Your task to perform on an android device: Open Chrome and go to settings Image 0: 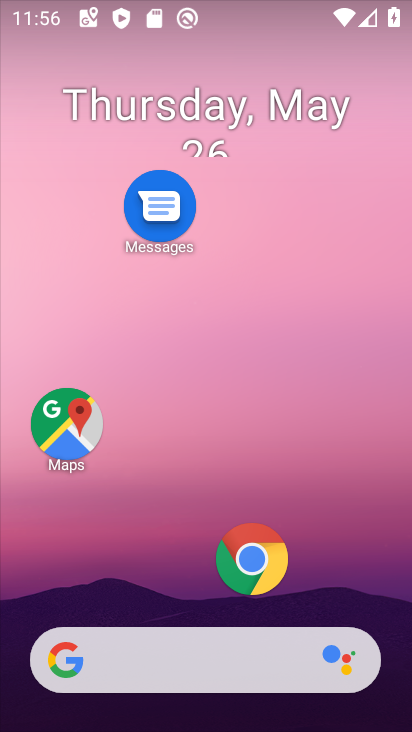
Step 0: press home button
Your task to perform on an android device: Open Chrome and go to settings Image 1: 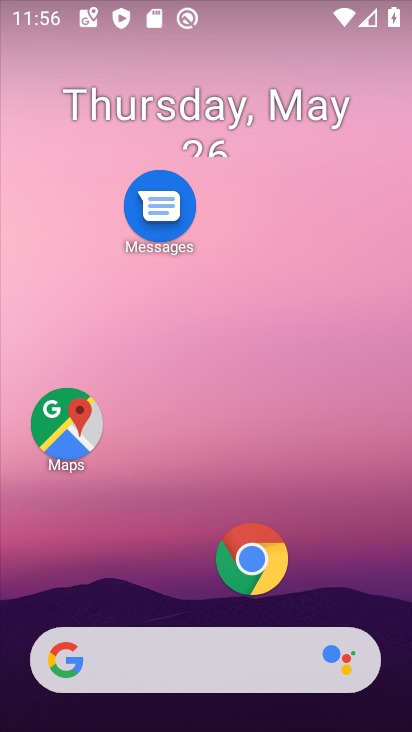
Step 1: click (252, 548)
Your task to perform on an android device: Open Chrome and go to settings Image 2: 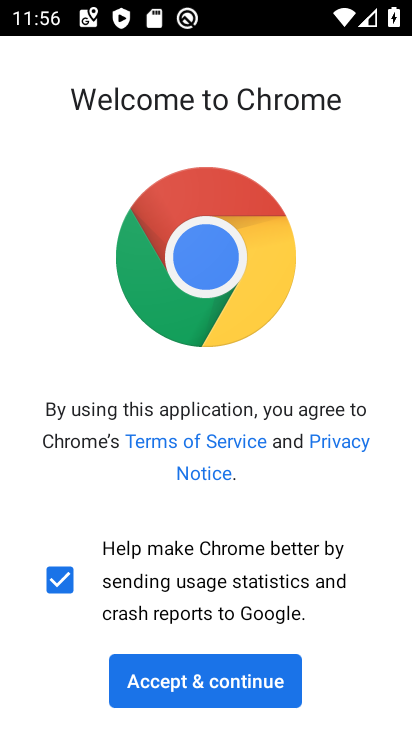
Step 2: click (195, 674)
Your task to perform on an android device: Open Chrome and go to settings Image 3: 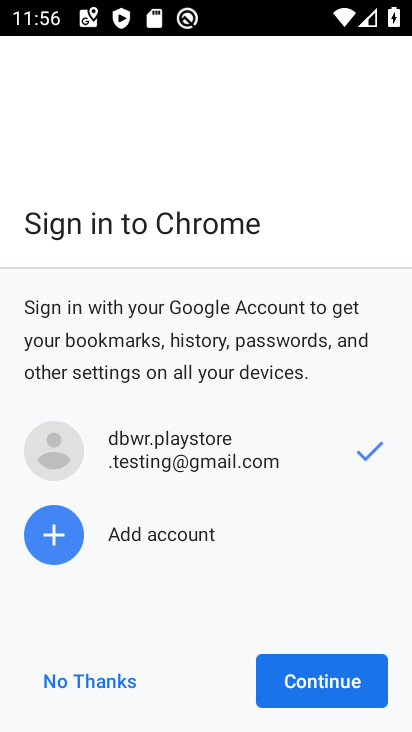
Step 3: click (324, 680)
Your task to perform on an android device: Open Chrome and go to settings Image 4: 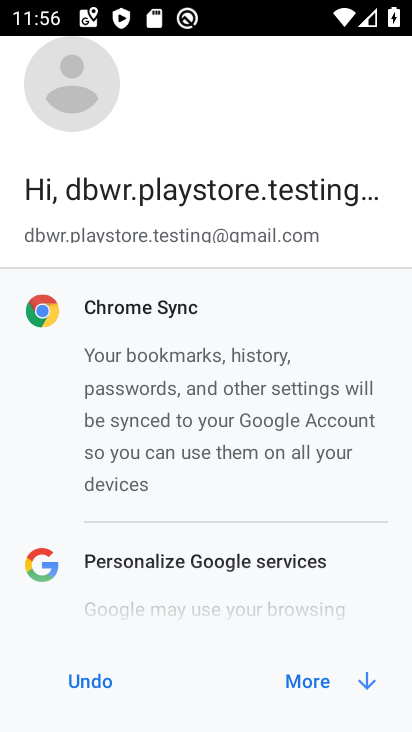
Step 4: click (246, 440)
Your task to perform on an android device: Open Chrome and go to settings Image 5: 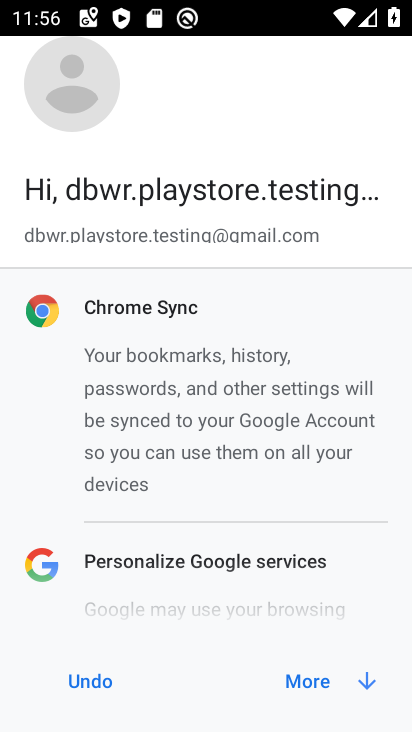
Step 5: click (320, 687)
Your task to perform on an android device: Open Chrome and go to settings Image 6: 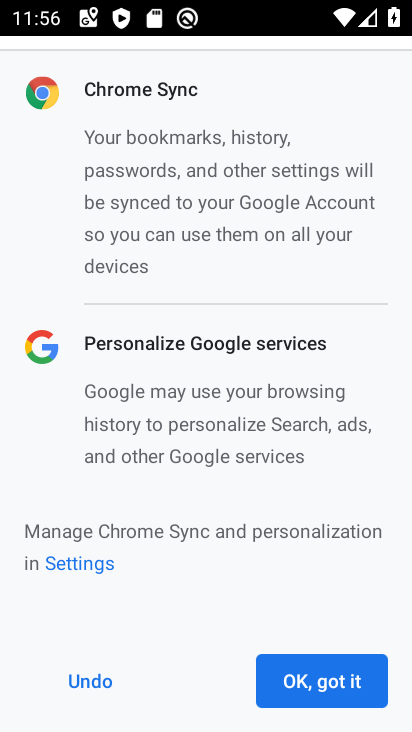
Step 6: click (320, 681)
Your task to perform on an android device: Open Chrome and go to settings Image 7: 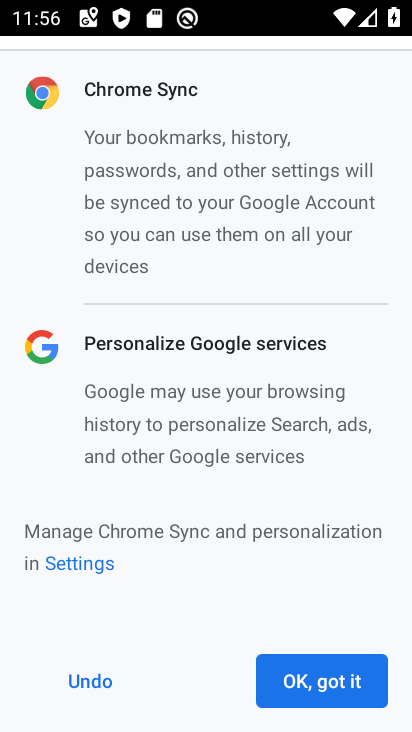
Step 7: click (320, 681)
Your task to perform on an android device: Open Chrome and go to settings Image 8: 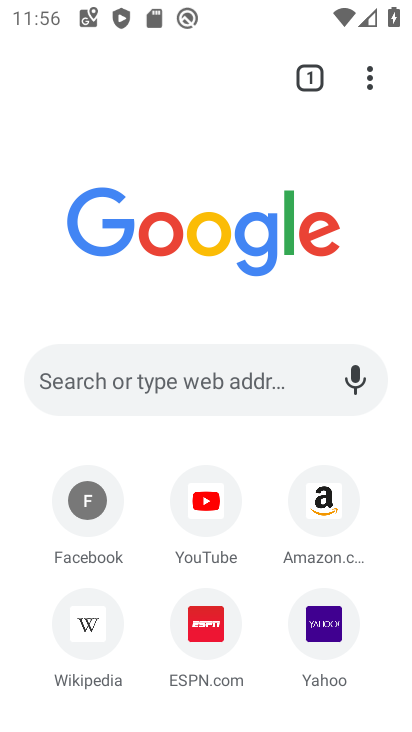
Step 8: click (323, 672)
Your task to perform on an android device: Open Chrome and go to settings Image 9: 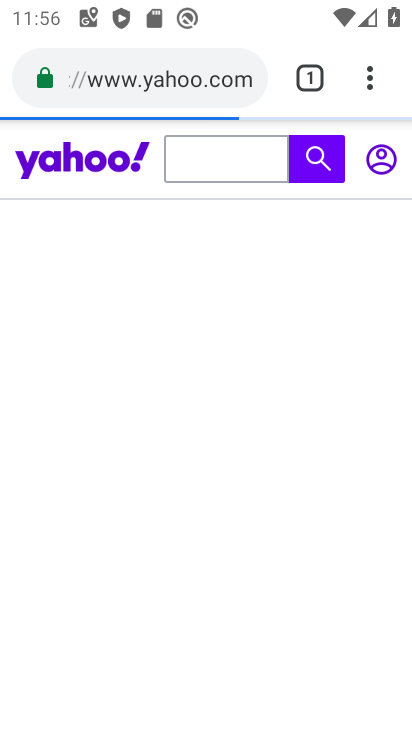
Step 9: click (323, 685)
Your task to perform on an android device: Open Chrome and go to settings Image 10: 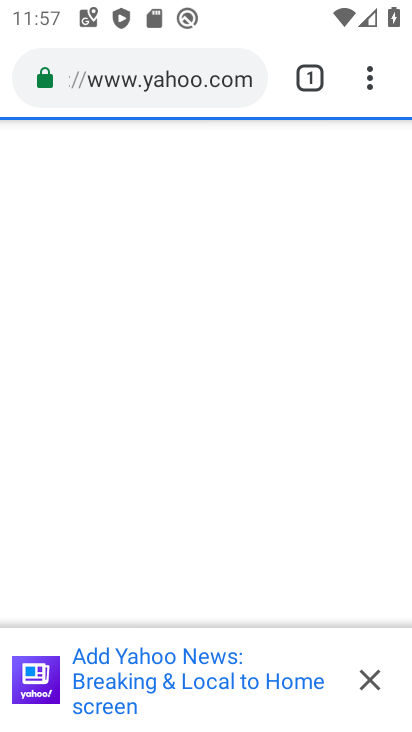
Step 10: click (369, 69)
Your task to perform on an android device: Open Chrome and go to settings Image 11: 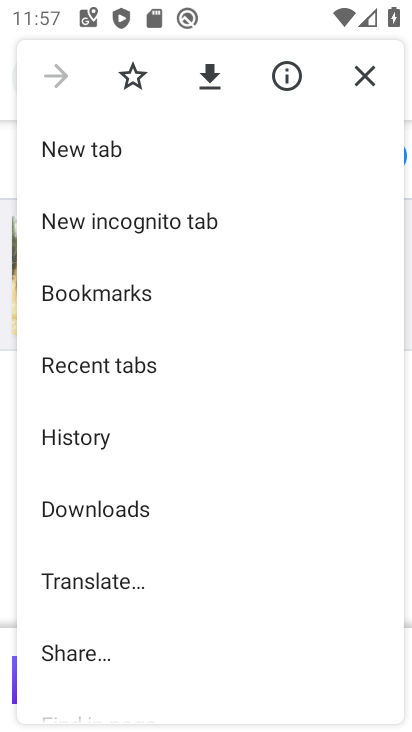
Step 11: drag from (192, 643) to (224, 129)
Your task to perform on an android device: Open Chrome and go to settings Image 12: 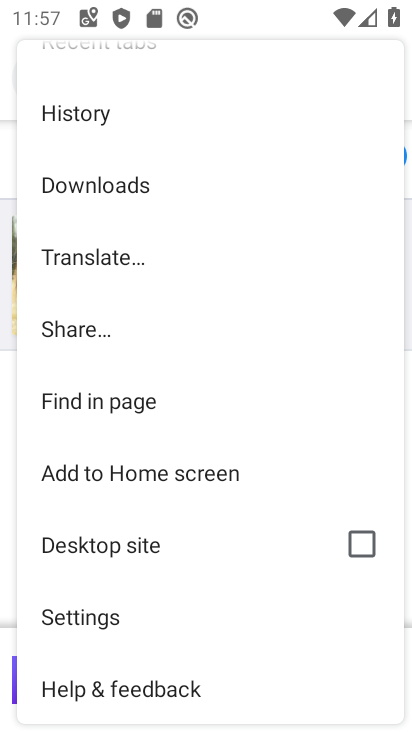
Step 12: drag from (170, 574) to (184, 196)
Your task to perform on an android device: Open Chrome and go to settings Image 13: 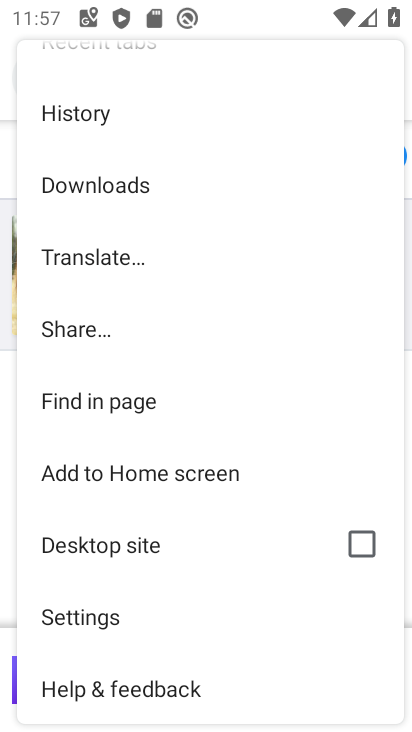
Step 13: drag from (172, 631) to (176, 283)
Your task to perform on an android device: Open Chrome and go to settings Image 14: 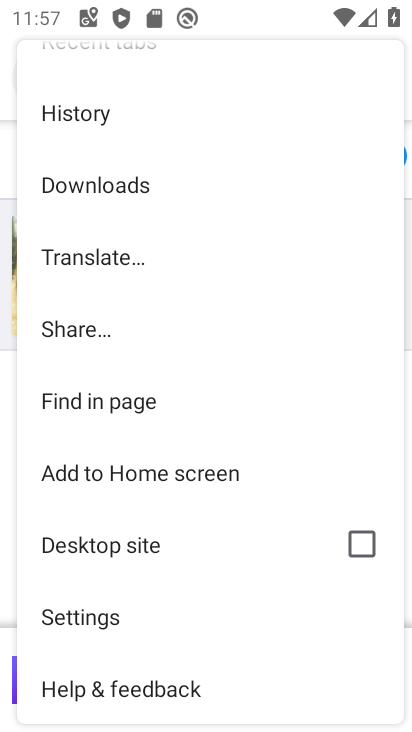
Step 14: drag from (195, 612) to (185, 217)
Your task to perform on an android device: Open Chrome and go to settings Image 15: 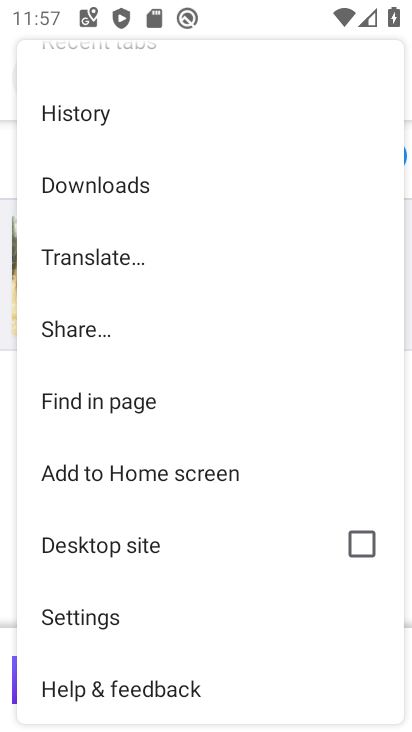
Step 15: click (133, 614)
Your task to perform on an android device: Open Chrome and go to settings Image 16: 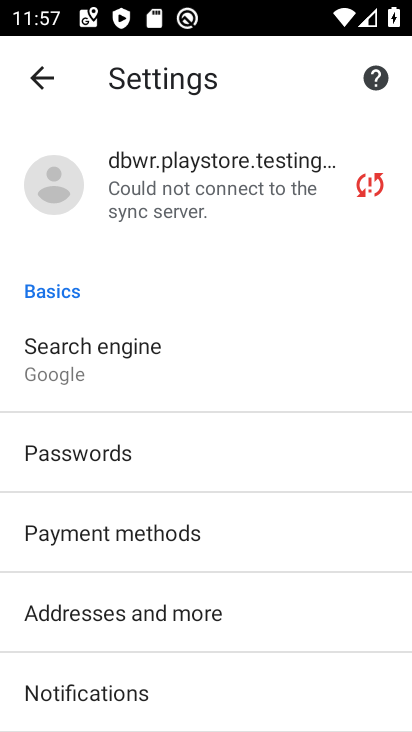
Step 16: task complete